Your task to perform on an android device: What is the news today? Image 0: 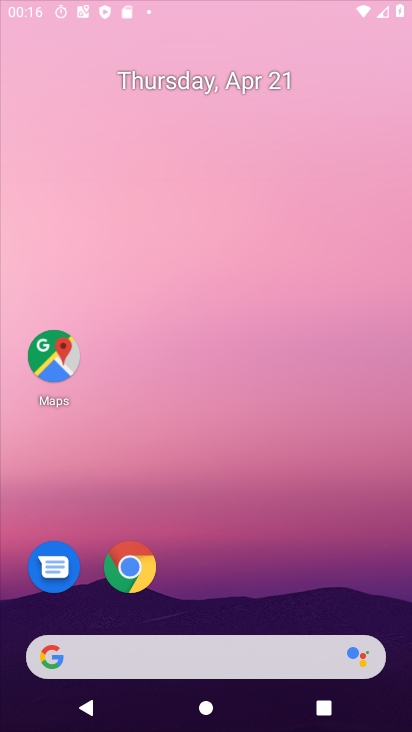
Step 0: drag from (210, 316) to (210, 258)
Your task to perform on an android device: What is the news today? Image 1: 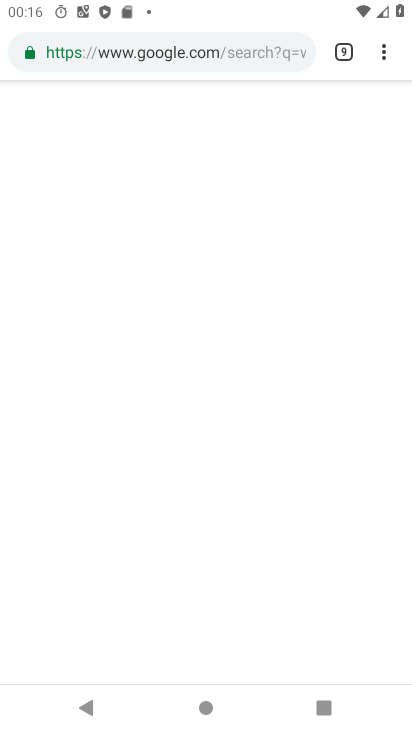
Step 1: press home button
Your task to perform on an android device: What is the news today? Image 2: 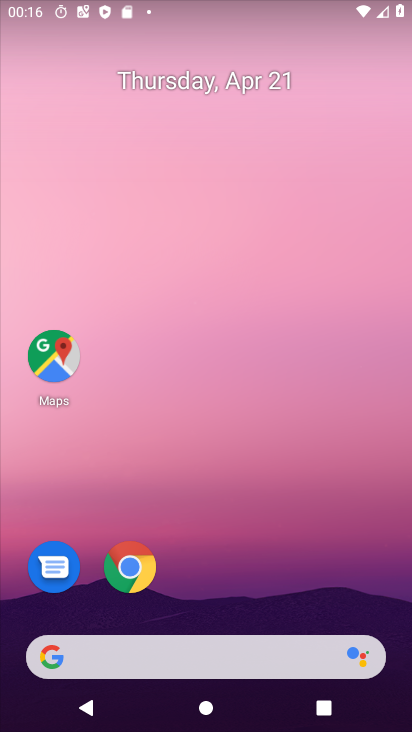
Step 2: drag from (260, 523) to (254, 170)
Your task to perform on an android device: What is the news today? Image 3: 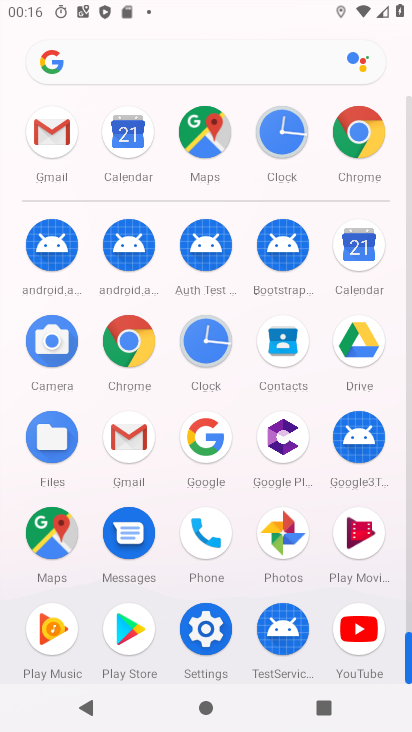
Step 3: click (125, 324)
Your task to perform on an android device: What is the news today? Image 4: 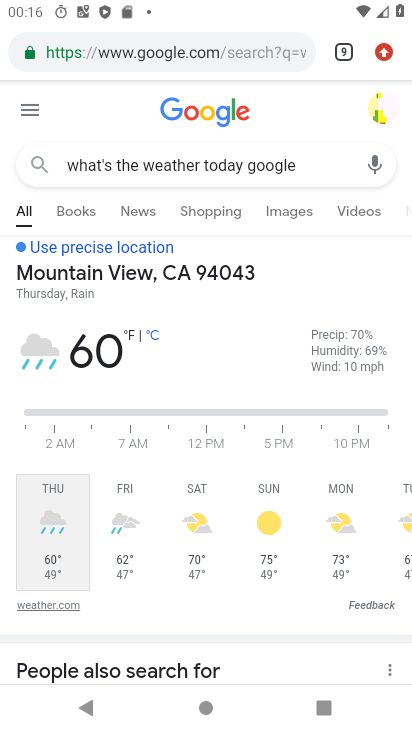
Step 4: click (384, 50)
Your task to perform on an android device: What is the news today? Image 5: 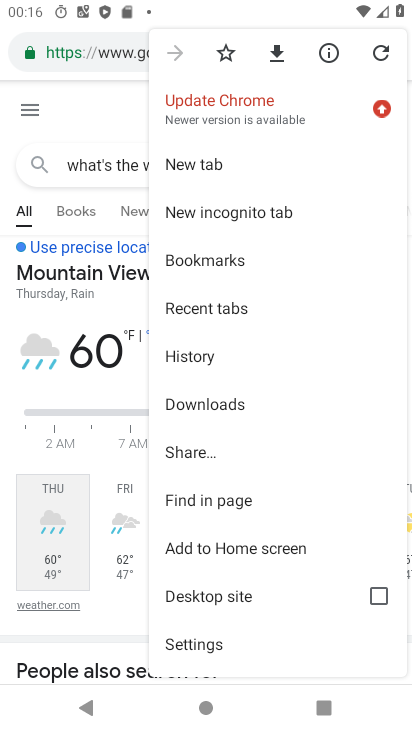
Step 5: click (214, 165)
Your task to perform on an android device: What is the news today? Image 6: 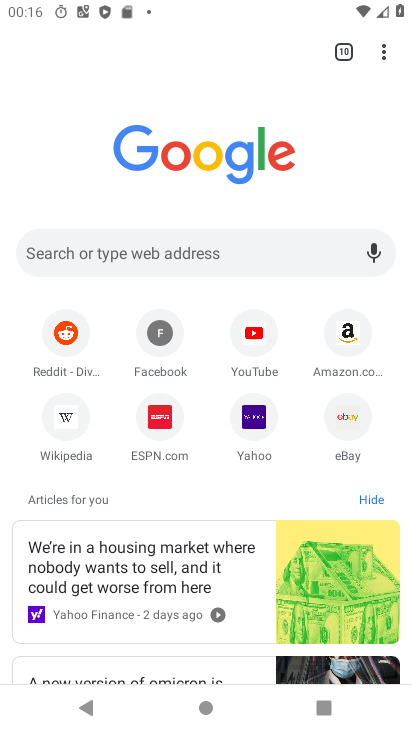
Step 6: click (203, 248)
Your task to perform on an android device: What is the news today? Image 7: 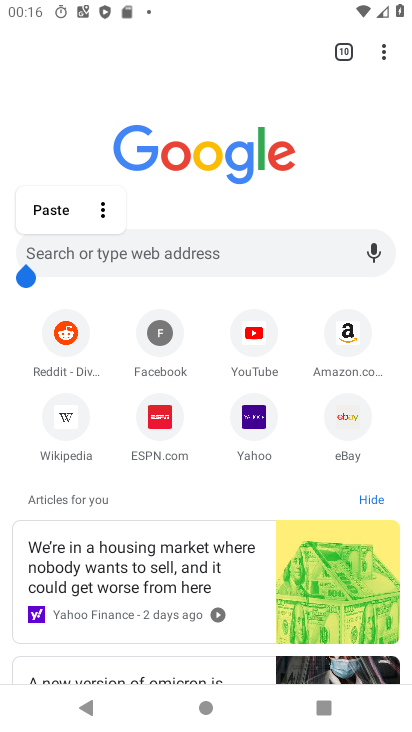
Step 7: type "What is the news today?"
Your task to perform on an android device: What is the news today? Image 8: 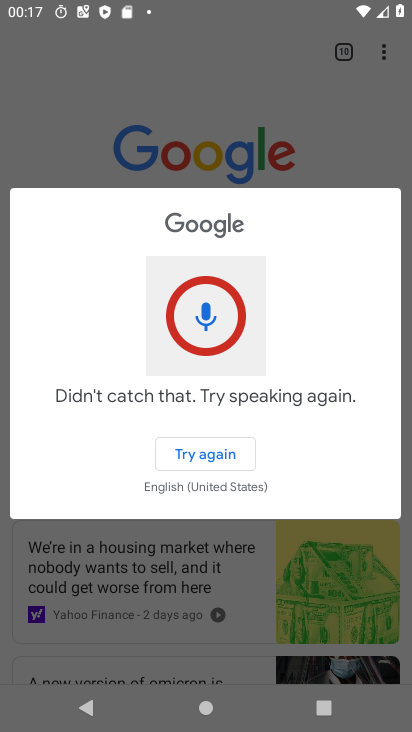
Step 8: click (210, 445)
Your task to perform on an android device: What is the news today? Image 9: 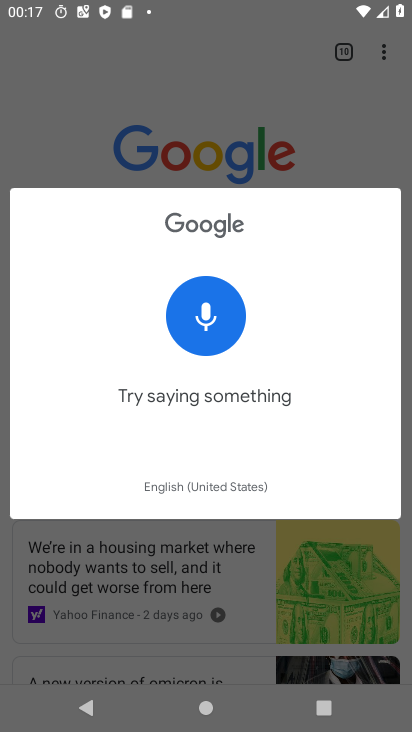
Step 9: click (240, 508)
Your task to perform on an android device: What is the news today? Image 10: 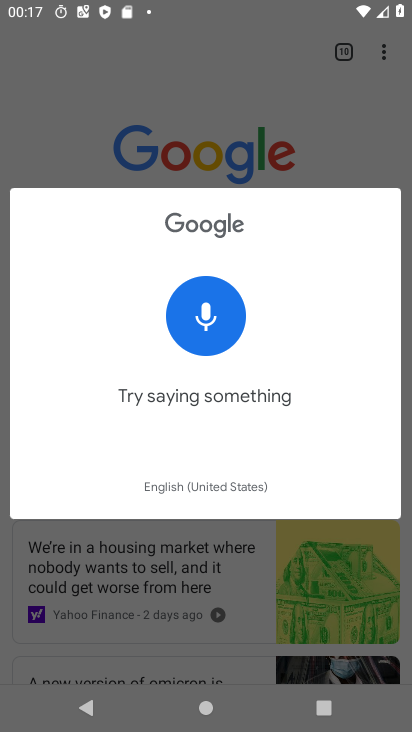
Step 10: click (235, 492)
Your task to perform on an android device: What is the news today? Image 11: 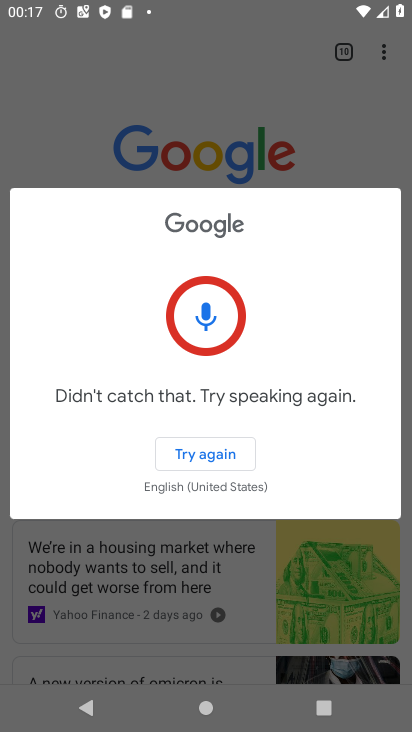
Step 11: press back button
Your task to perform on an android device: What is the news today? Image 12: 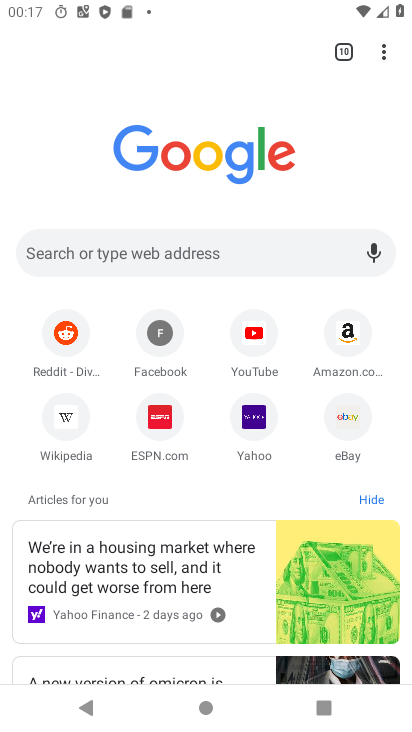
Step 12: click (197, 243)
Your task to perform on an android device: What is the news today? Image 13: 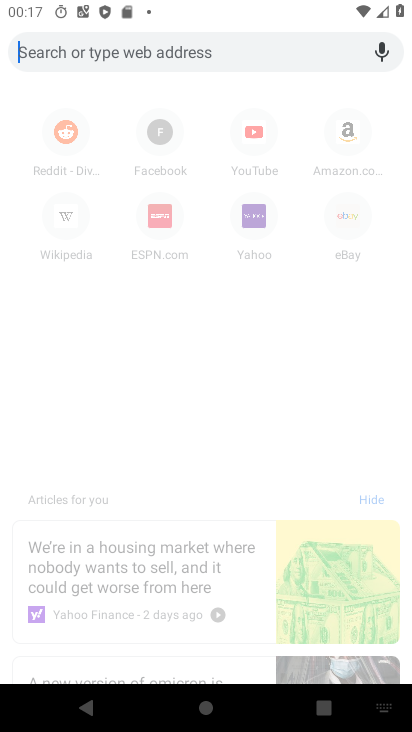
Step 13: click (114, 41)
Your task to perform on an android device: What is the news today? Image 14: 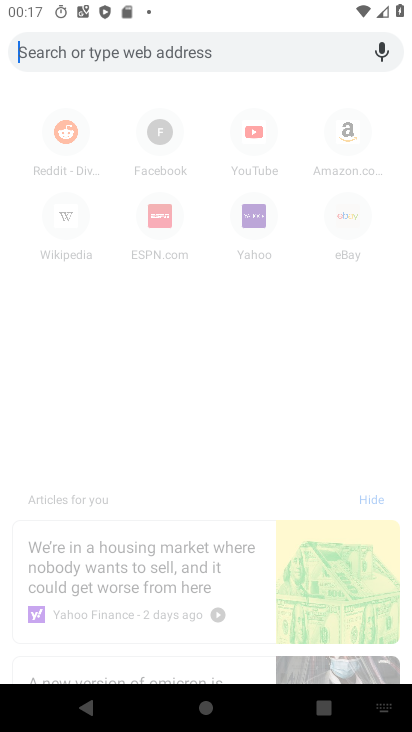
Step 14: type "What is the news today?"
Your task to perform on an android device: What is the news today? Image 15: 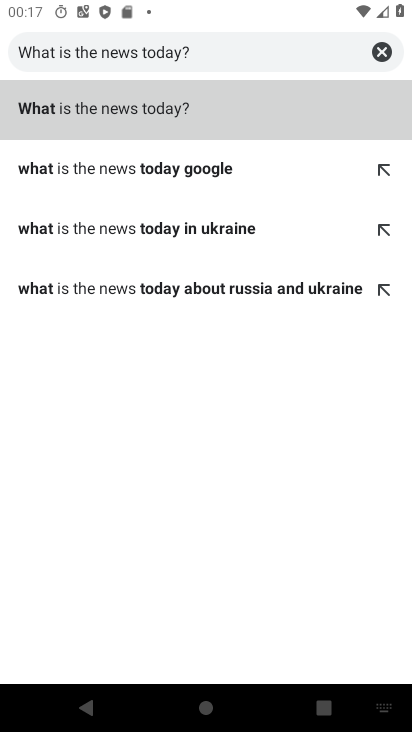
Step 15: click (132, 108)
Your task to perform on an android device: What is the news today? Image 16: 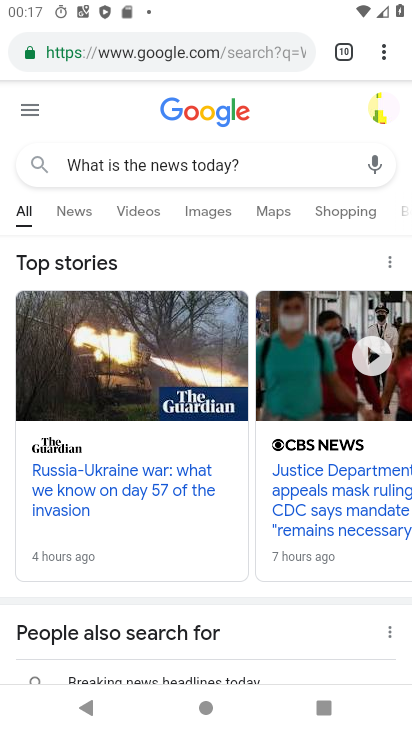
Step 16: task complete